Your task to perform on an android device: find which apps use the phone's location Image 0: 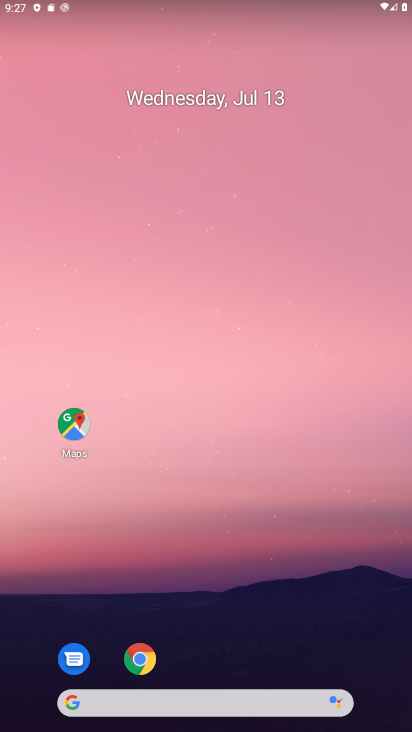
Step 0: drag from (201, 701) to (232, 50)
Your task to perform on an android device: find which apps use the phone's location Image 1: 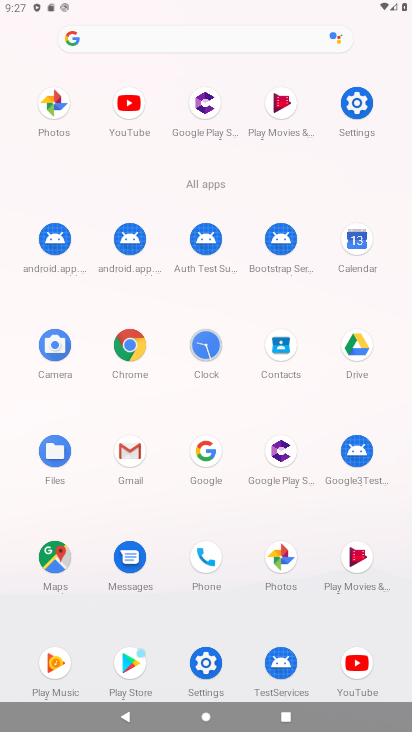
Step 1: click (353, 114)
Your task to perform on an android device: find which apps use the phone's location Image 2: 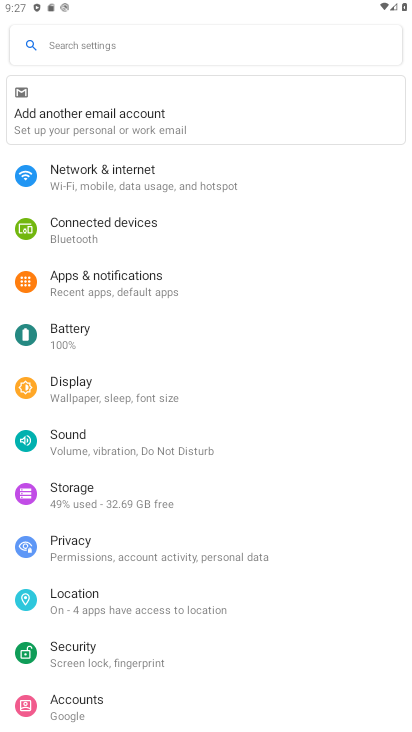
Step 2: click (94, 597)
Your task to perform on an android device: find which apps use the phone's location Image 3: 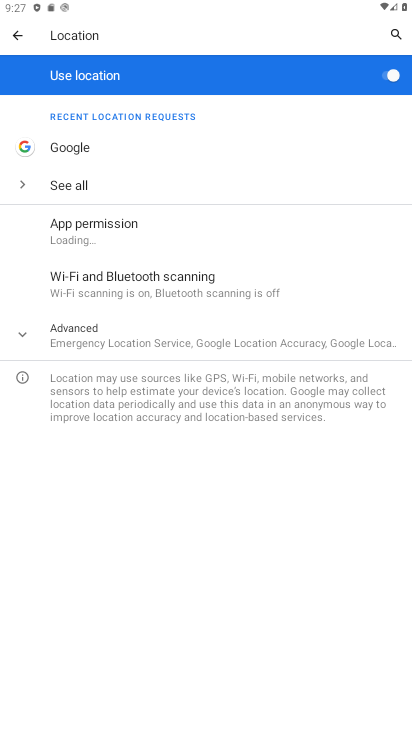
Step 3: click (83, 223)
Your task to perform on an android device: find which apps use the phone's location Image 4: 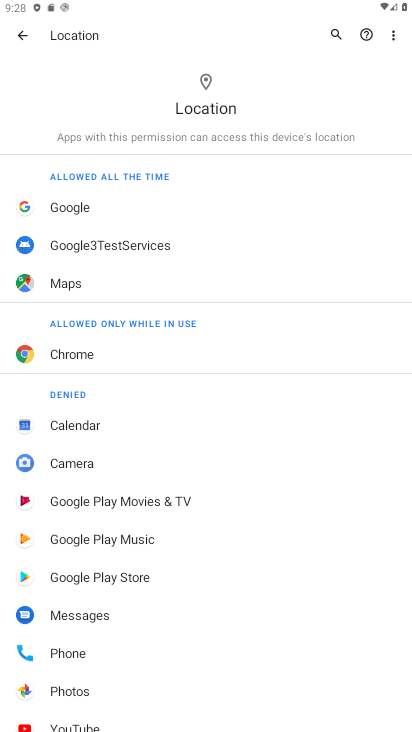
Step 4: task complete